Your task to perform on an android device: turn off location Image 0: 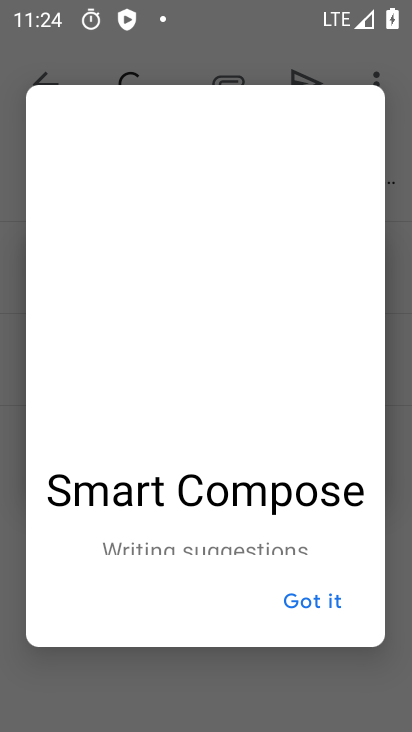
Step 0: press home button
Your task to perform on an android device: turn off location Image 1: 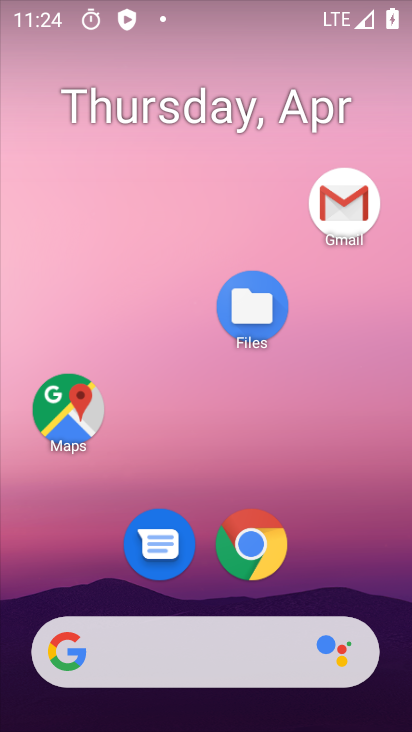
Step 1: drag from (345, 578) to (225, 25)
Your task to perform on an android device: turn off location Image 2: 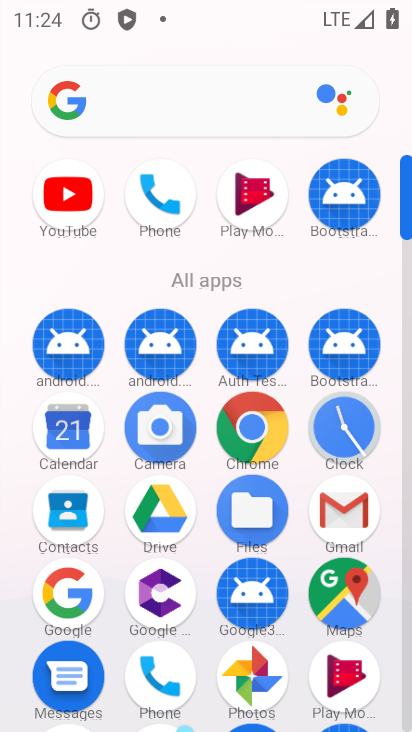
Step 2: drag from (219, 281) to (209, 77)
Your task to perform on an android device: turn off location Image 3: 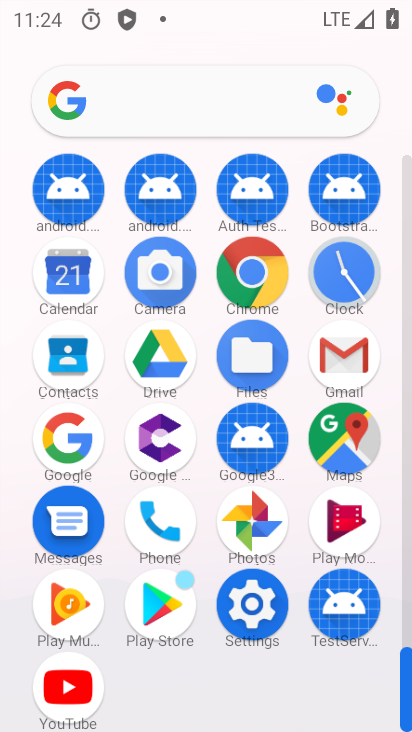
Step 3: click (244, 598)
Your task to perform on an android device: turn off location Image 4: 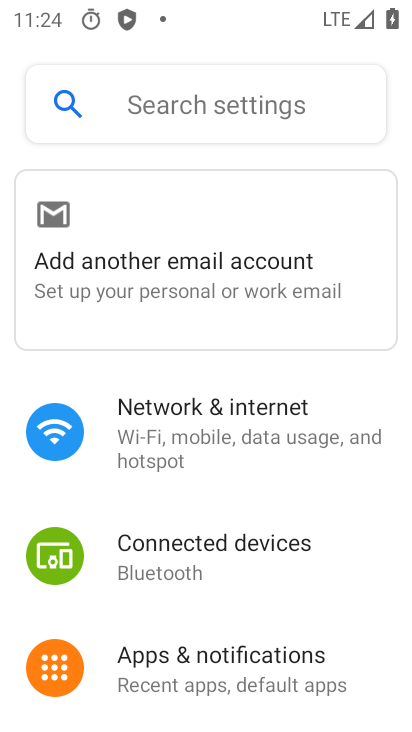
Step 4: drag from (223, 601) to (240, 252)
Your task to perform on an android device: turn off location Image 5: 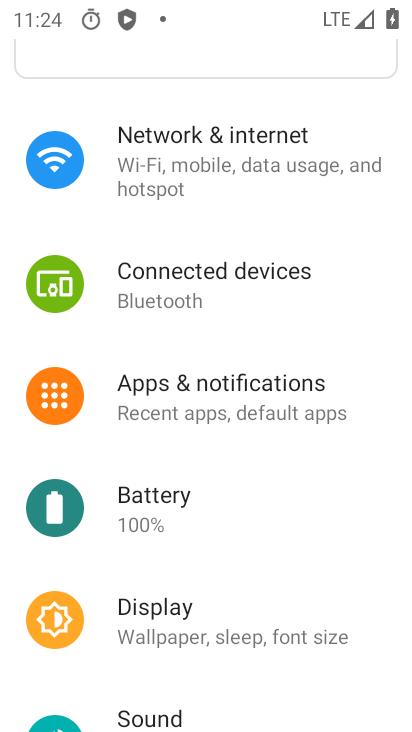
Step 5: drag from (167, 570) to (183, 211)
Your task to perform on an android device: turn off location Image 6: 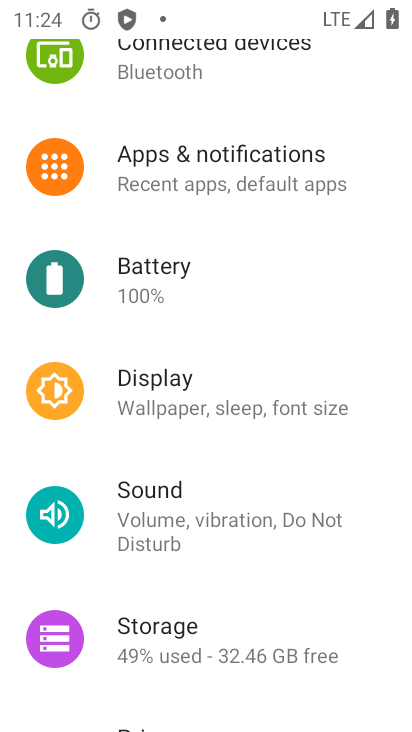
Step 6: drag from (157, 594) to (173, 295)
Your task to perform on an android device: turn off location Image 7: 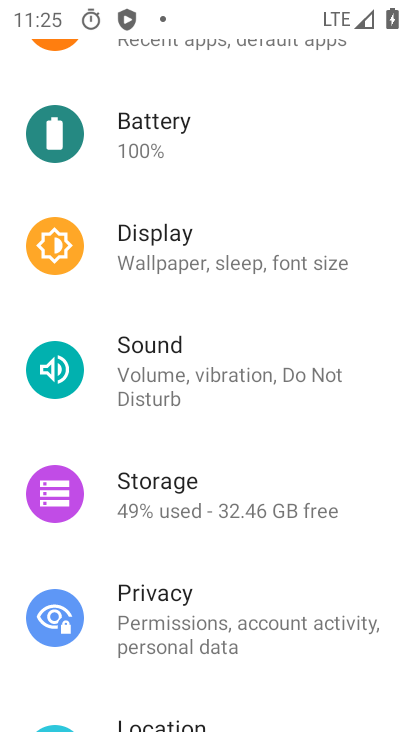
Step 7: drag from (198, 701) to (237, 357)
Your task to perform on an android device: turn off location Image 8: 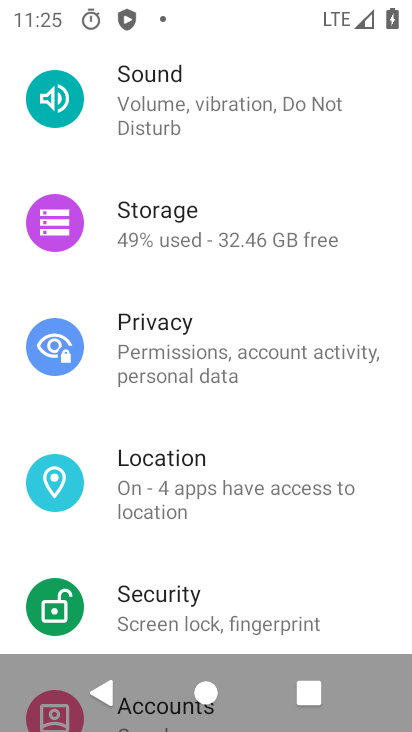
Step 8: click (209, 475)
Your task to perform on an android device: turn off location Image 9: 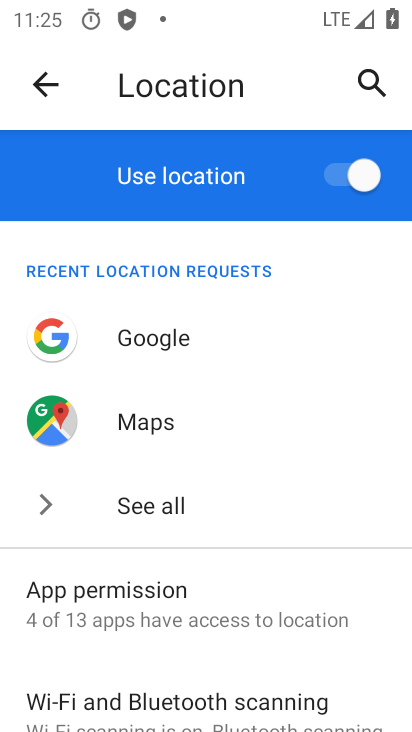
Step 9: click (362, 179)
Your task to perform on an android device: turn off location Image 10: 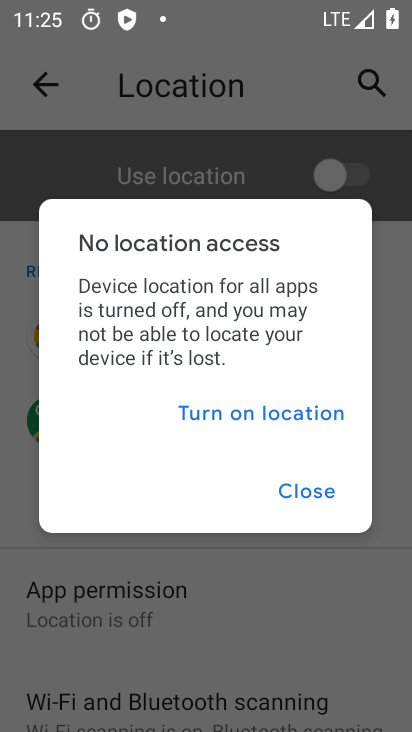
Step 10: click (306, 492)
Your task to perform on an android device: turn off location Image 11: 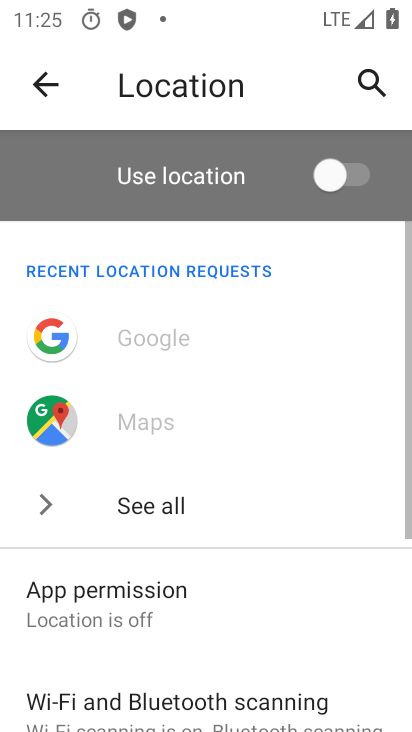
Step 11: task complete